Your task to perform on an android device: Go to accessibility settings Image 0: 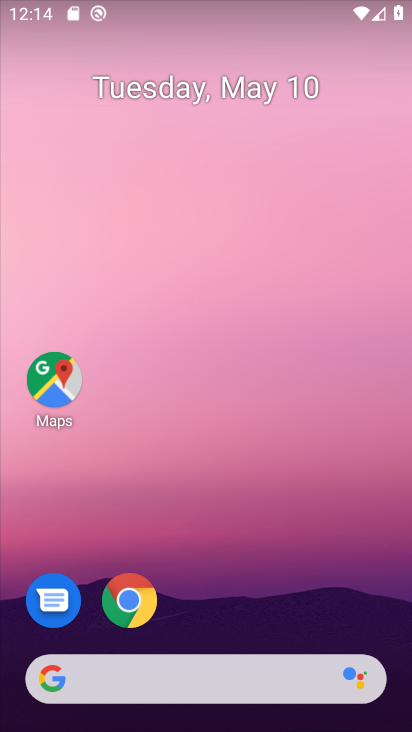
Step 0: drag from (200, 649) to (331, 5)
Your task to perform on an android device: Go to accessibility settings Image 1: 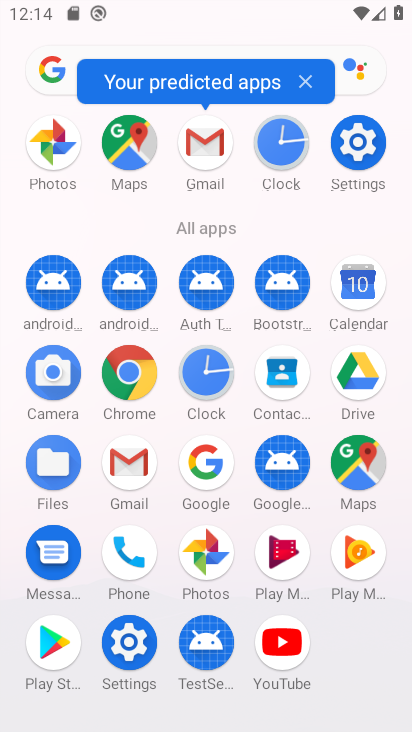
Step 1: click (147, 650)
Your task to perform on an android device: Go to accessibility settings Image 2: 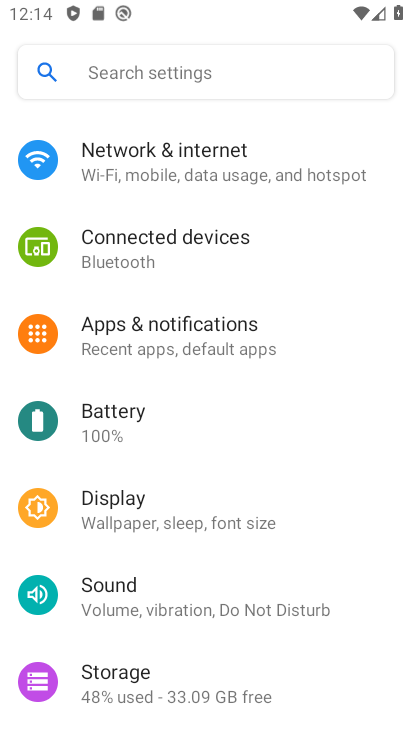
Step 2: drag from (138, 660) to (248, 180)
Your task to perform on an android device: Go to accessibility settings Image 3: 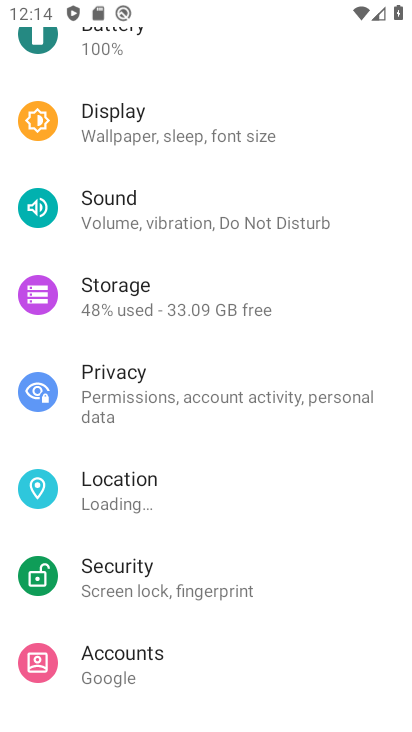
Step 3: drag from (190, 669) to (261, 342)
Your task to perform on an android device: Go to accessibility settings Image 4: 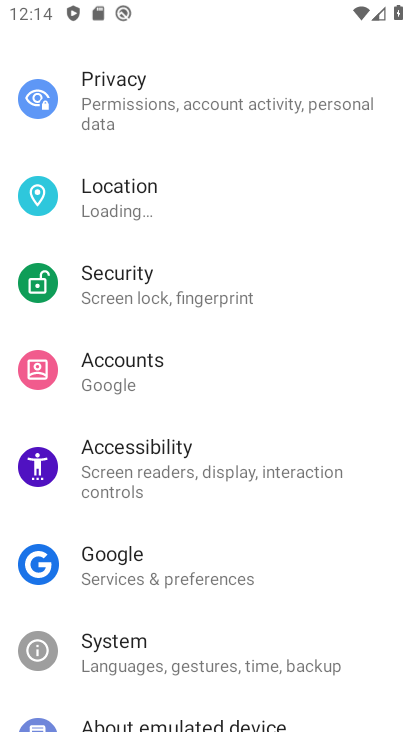
Step 4: click (184, 454)
Your task to perform on an android device: Go to accessibility settings Image 5: 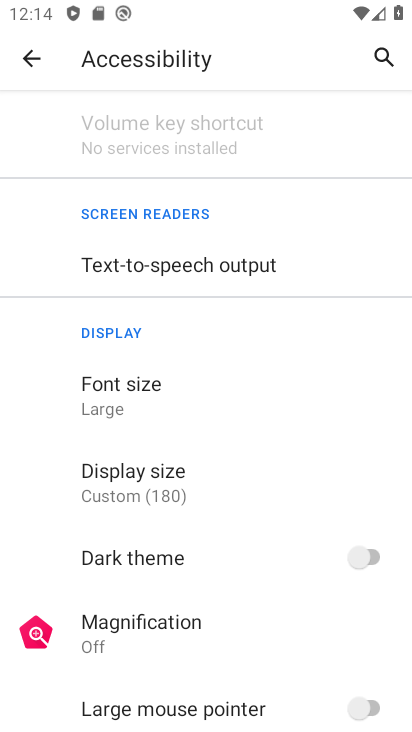
Step 5: task complete